Your task to perform on an android device: move an email to a new category in the gmail app Image 0: 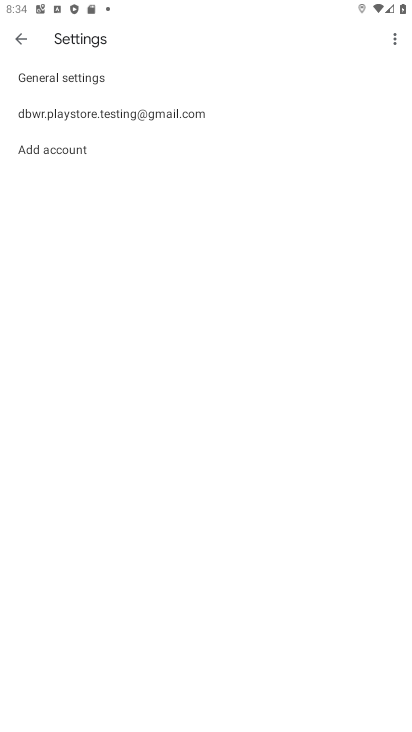
Step 0: press home button
Your task to perform on an android device: move an email to a new category in the gmail app Image 1: 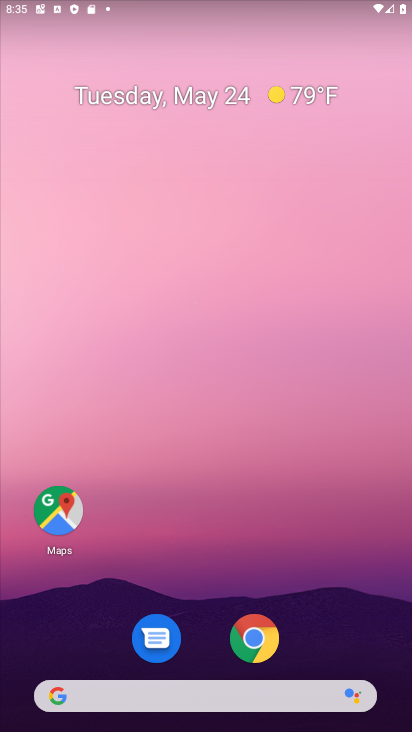
Step 1: drag from (200, 719) to (149, 3)
Your task to perform on an android device: move an email to a new category in the gmail app Image 2: 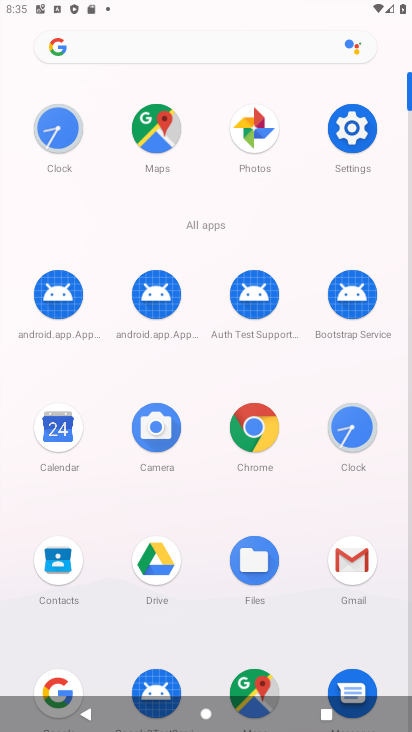
Step 2: click (349, 575)
Your task to perform on an android device: move an email to a new category in the gmail app Image 3: 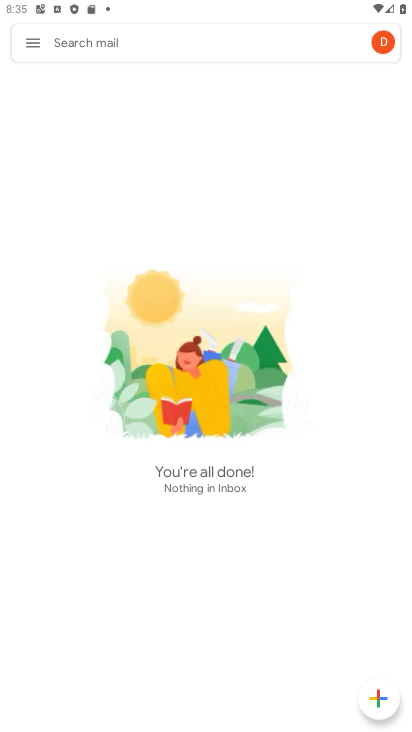
Step 3: task complete